Your task to perform on an android device: turn pop-ups on in chrome Image 0: 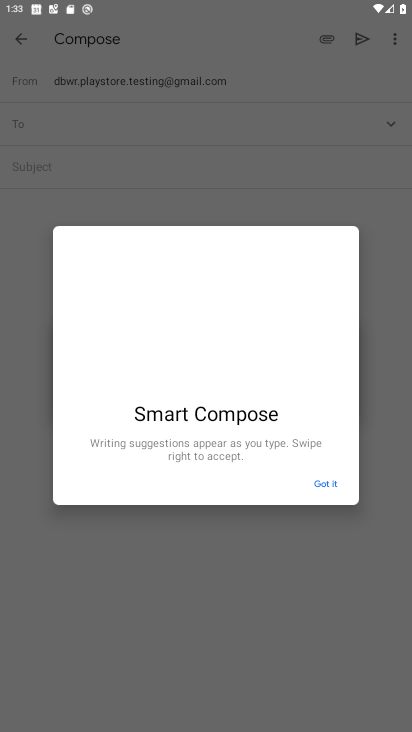
Step 0: press home button
Your task to perform on an android device: turn pop-ups on in chrome Image 1: 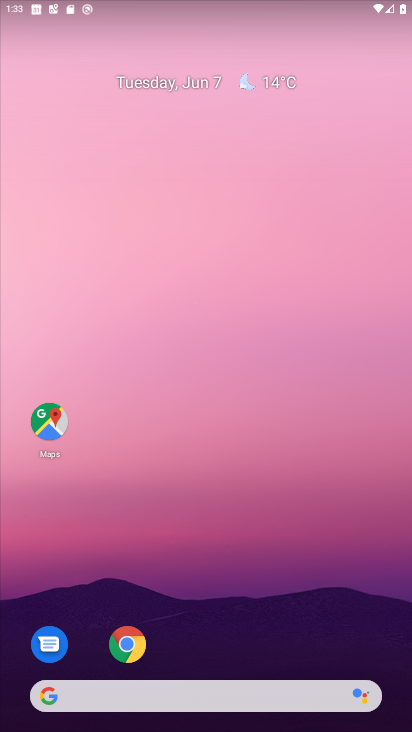
Step 1: click (130, 639)
Your task to perform on an android device: turn pop-ups on in chrome Image 2: 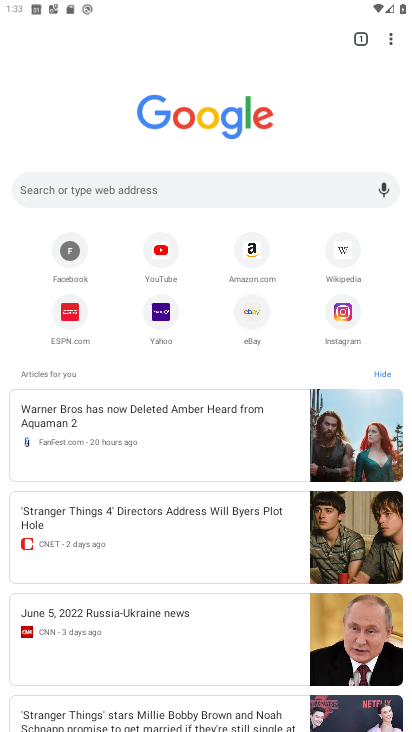
Step 2: click (395, 41)
Your task to perform on an android device: turn pop-ups on in chrome Image 3: 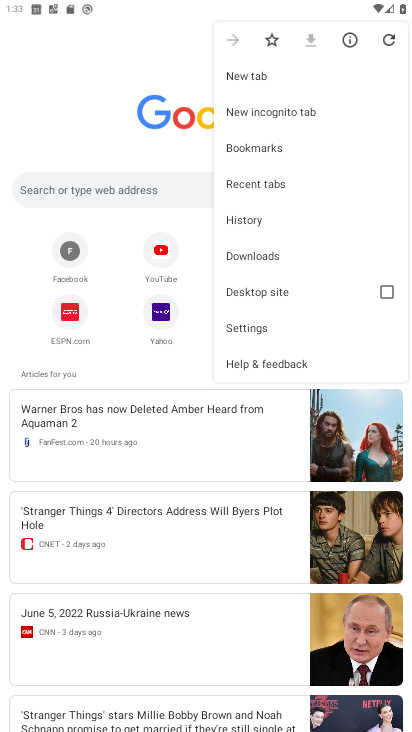
Step 3: click (259, 319)
Your task to perform on an android device: turn pop-ups on in chrome Image 4: 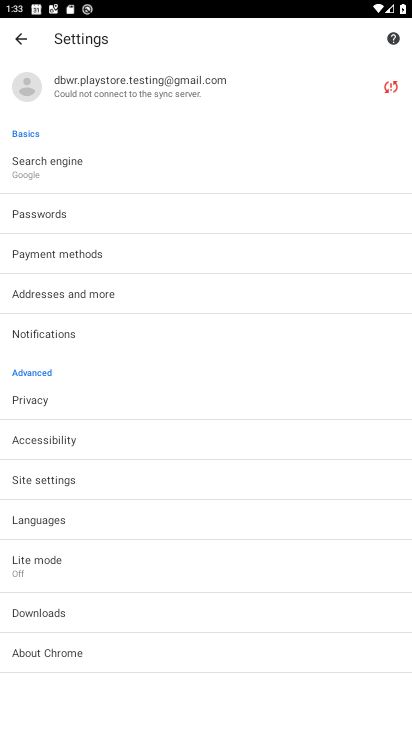
Step 4: drag from (91, 659) to (126, 379)
Your task to perform on an android device: turn pop-ups on in chrome Image 5: 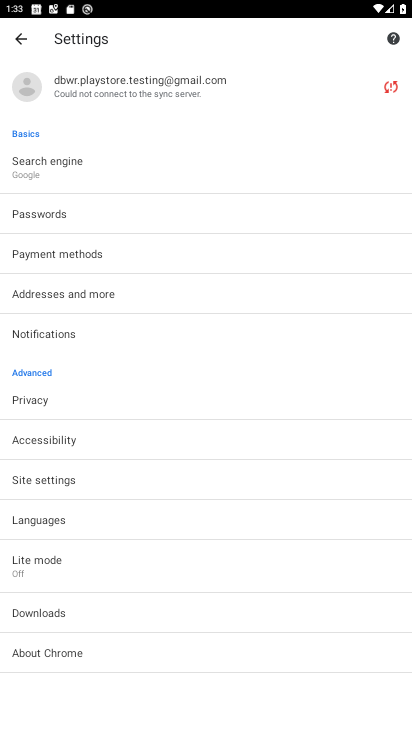
Step 5: click (76, 471)
Your task to perform on an android device: turn pop-ups on in chrome Image 6: 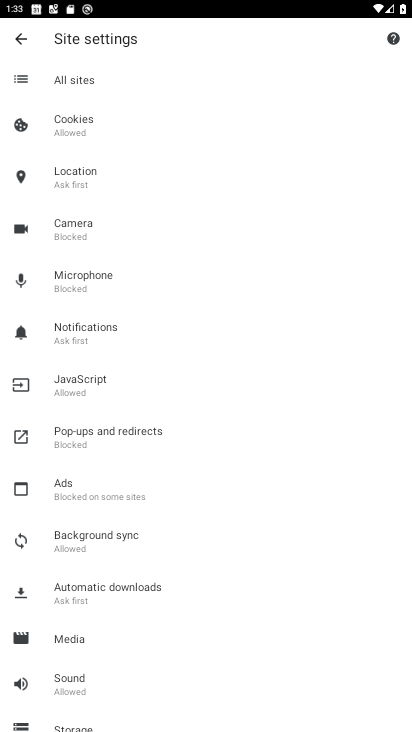
Step 6: click (151, 438)
Your task to perform on an android device: turn pop-ups on in chrome Image 7: 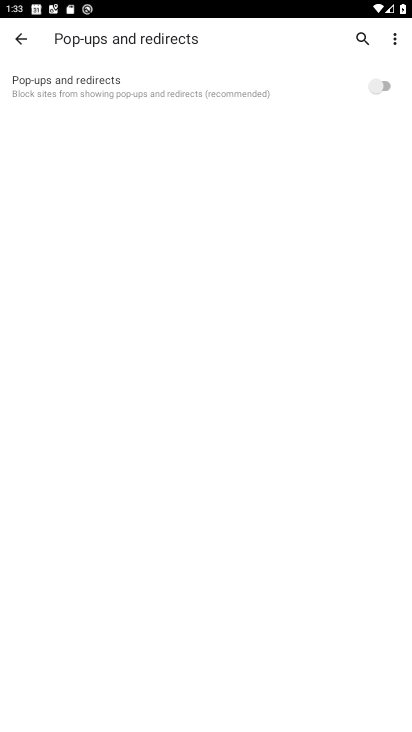
Step 7: click (380, 92)
Your task to perform on an android device: turn pop-ups on in chrome Image 8: 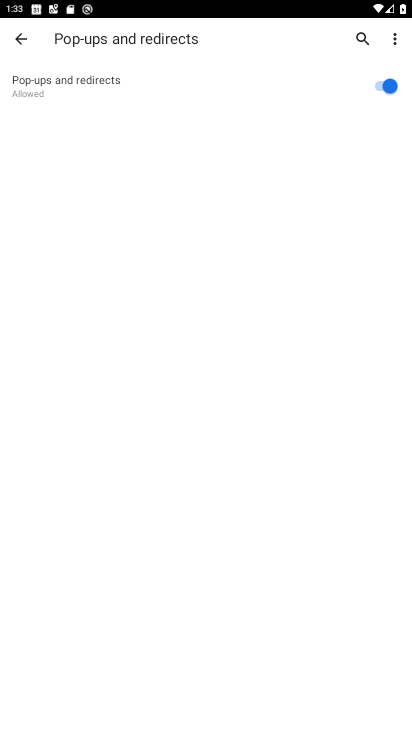
Step 8: task complete